Your task to perform on an android device: add a label to a message in the gmail app Image 0: 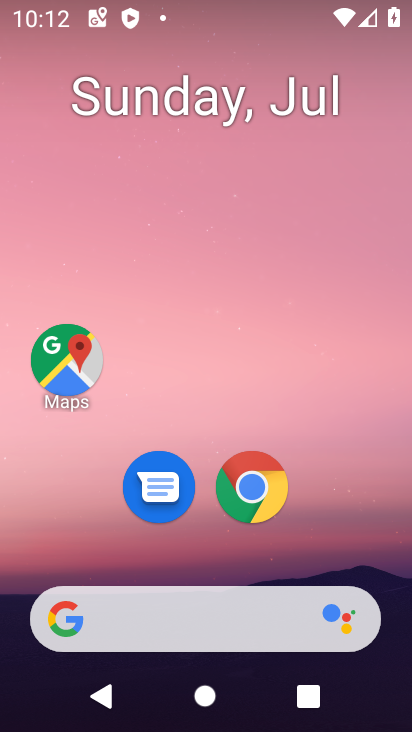
Step 0: drag from (189, 553) to (310, 3)
Your task to perform on an android device: add a label to a message in the gmail app Image 1: 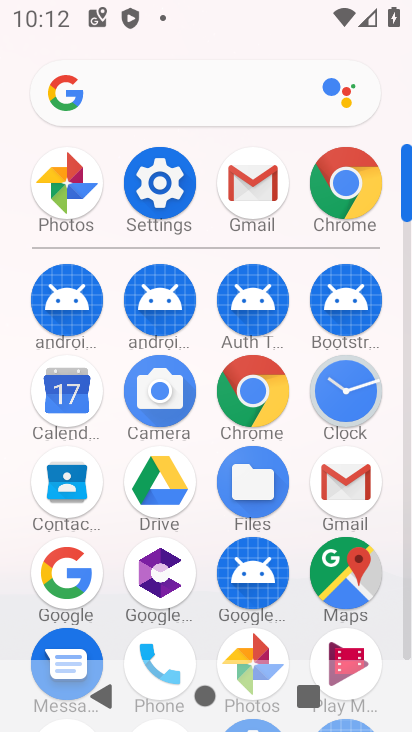
Step 1: click (261, 184)
Your task to perform on an android device: add a label to a message in the gmail app Image 2: 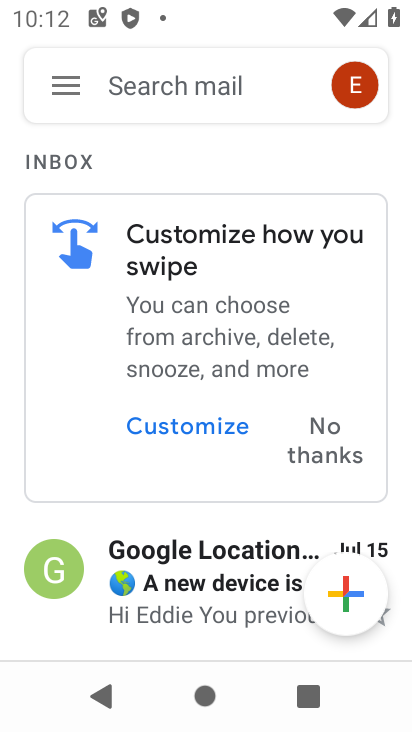
Step 2: drag from (203, 601) to (285, 116)
Your task to perform on an android device: add a label to a message in the gmail app Image 3: 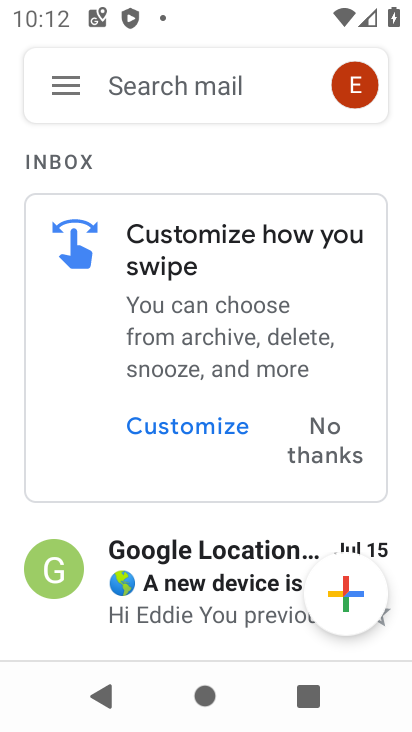
Step 3: drag from (213, 569) to (257, 81)
Your task to perform on an android device: add a label to a message in the gmail app Image 4: 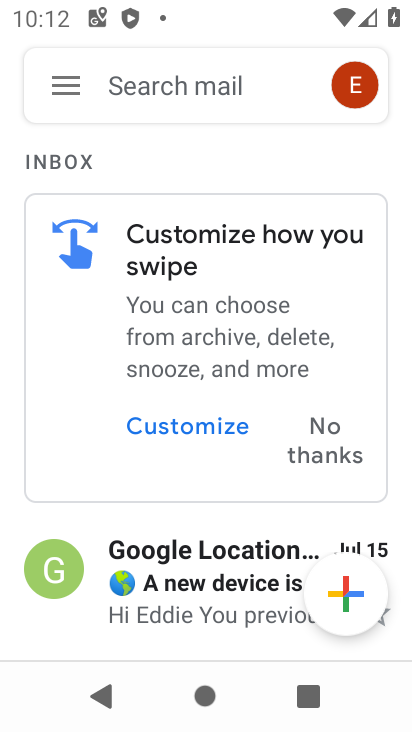
Step 4: click (59, 77)
Your task to perform on an android device: add a label to a message in the gmail app Image 5: 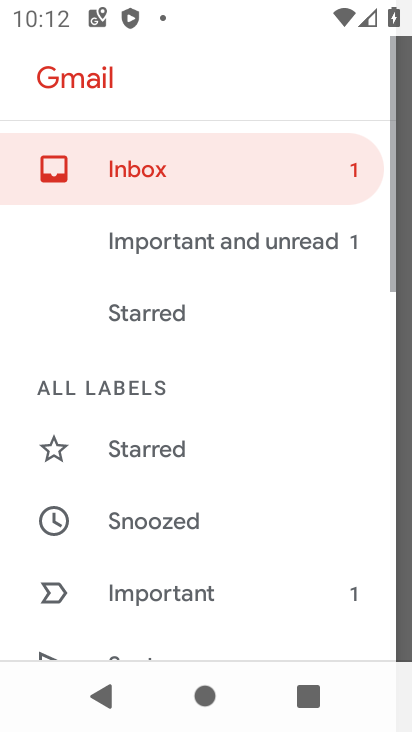
Step 5: drag from (173, 607) to (271, 132)
Your task to perform on an android device: add a label to a message in the gmail app Image 6: 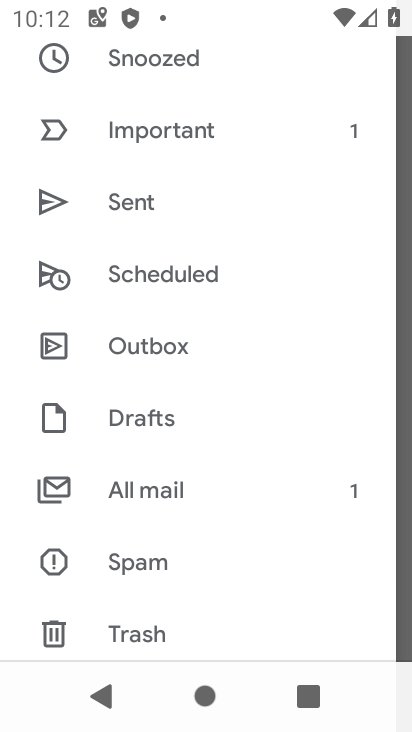
Step 6: click (215, 475)
Your task to perform on an android device: add a label to a message in the gmail app Image 7: 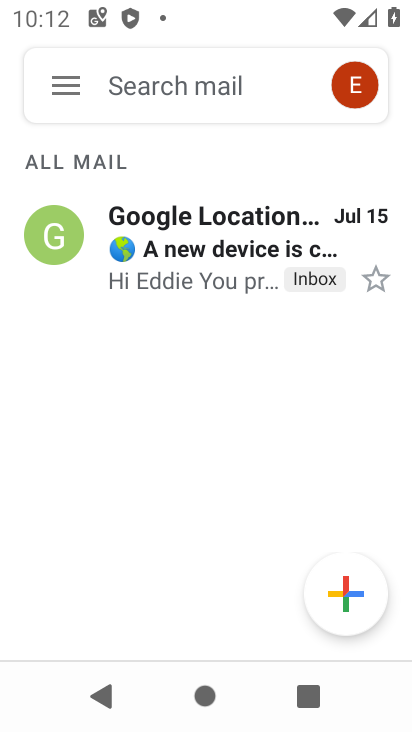
Step 7: click (188, 217)
Your task to perform on an android device: add a label to a message in the gmail app Image 8: 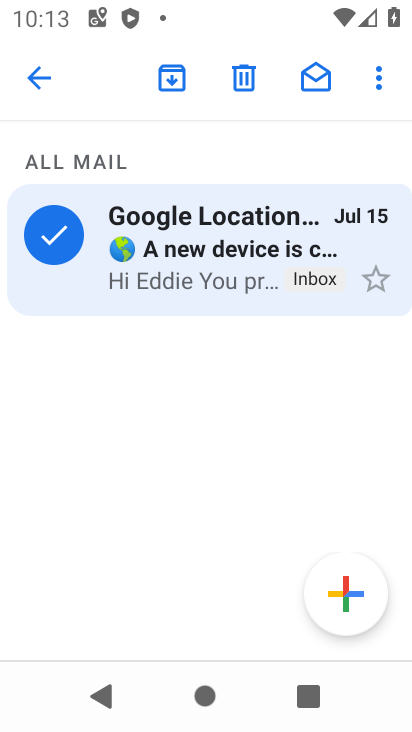
Step 8: click (375, 90)
Your task to perform on an android device: add a label to a message in the gmail app Image 9: 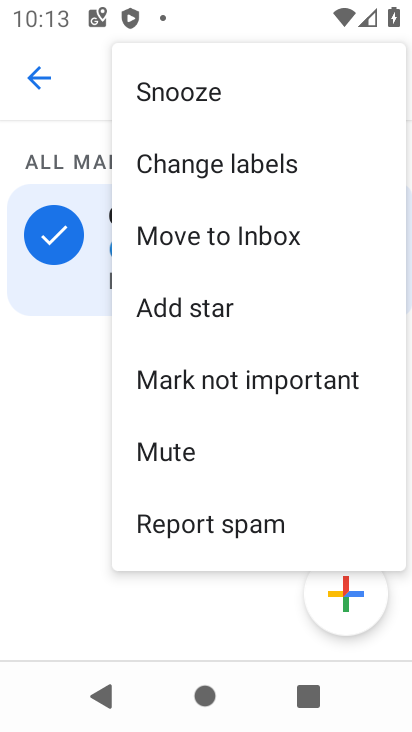
Step 9: click (228, 146)
Your task to perform on an android device: add a label to a message in the gmail app Image 10: 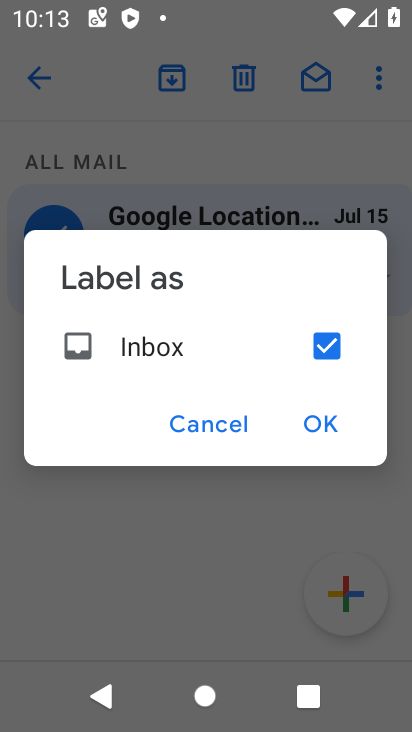
Step 10: click (329, 418)
Your task to perform on an android device: add a label to a message in the gmail app Image 11: 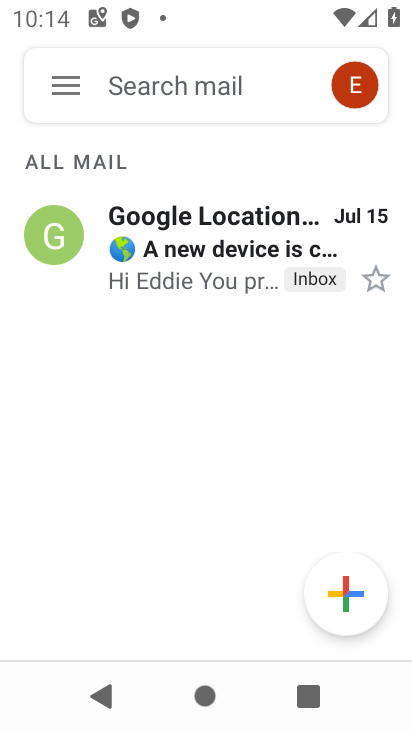
Step 11: task complete